Your task to perform on an android device: Open privacy settings Image 0: 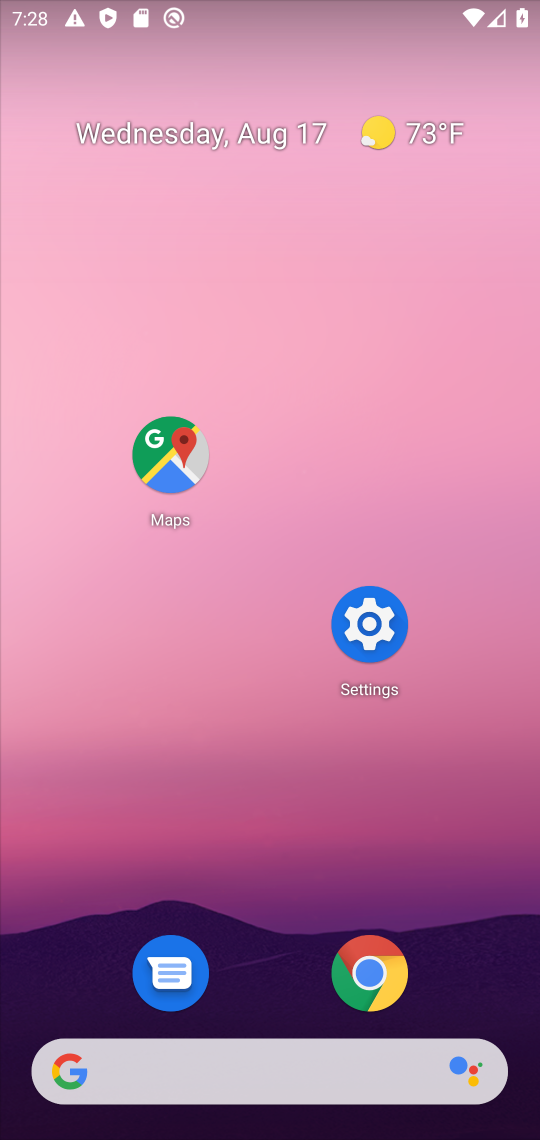
Step 0: click (365, 626)
Your task to perform on an android device: Open privacy settings Image 1: 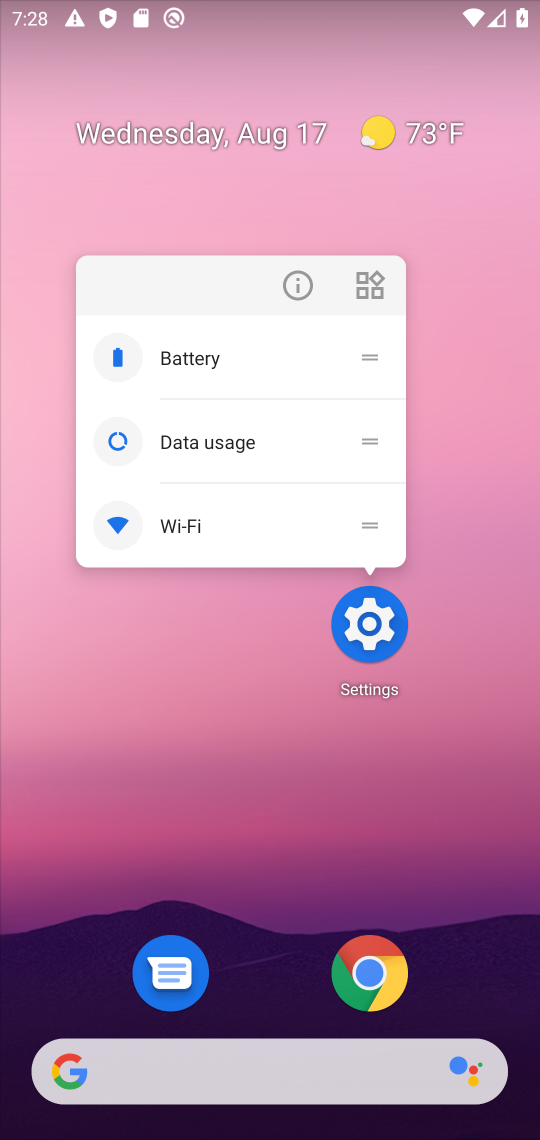
Step 1: click (372, 616)
Your task to perform on an android device: Open privacy settings Image 2: 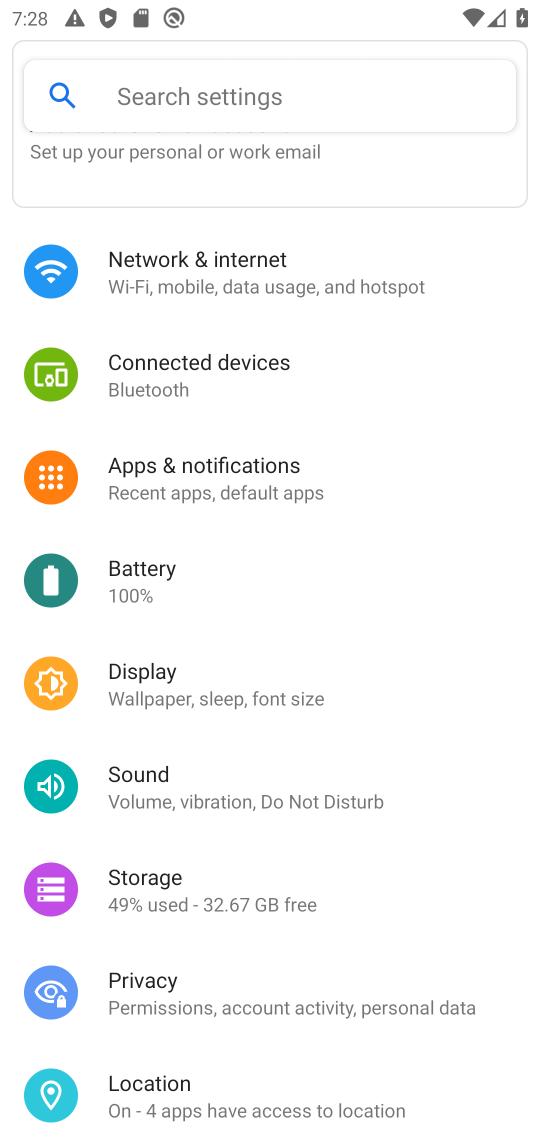
Step 2: click (152, 983)
Your task to perform on an android device: Open privacy settings Image 3: 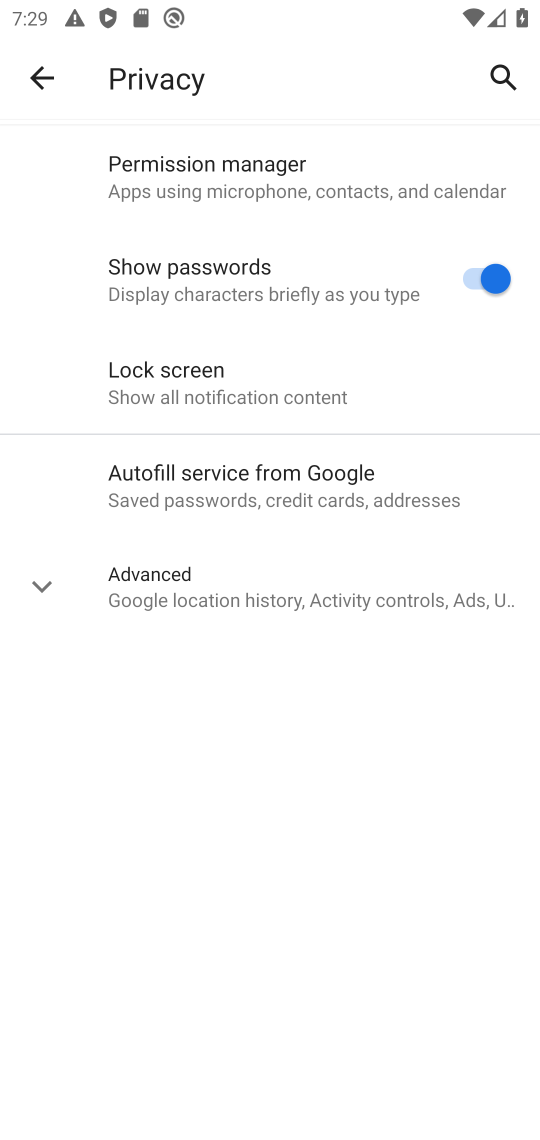
Step 3: task complete